Your task to perform on an android device: What's on my calendar tomorrow? Image 0: 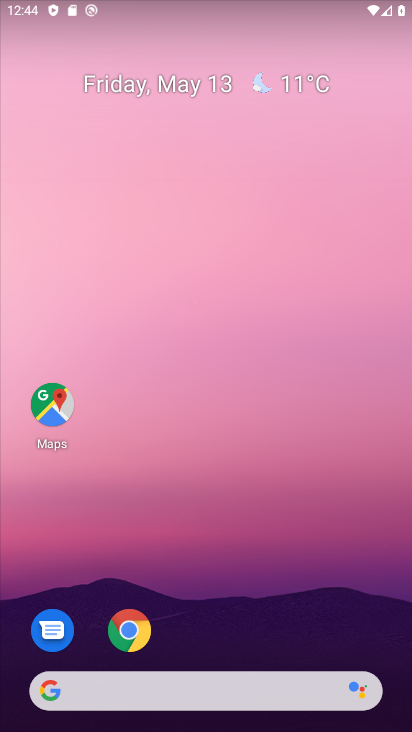
Step 0: drag from (237, 557) to (259, 158)
Your task to perform on an android device: What's on my calendar tomorrow? Image 1: 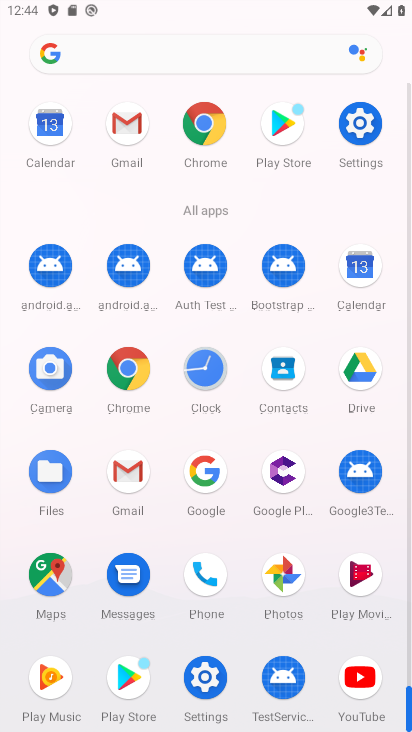
Step 1: click (356, 289)
Your task to perform on an android device: What's on my calendar tomorrow? Image 2: 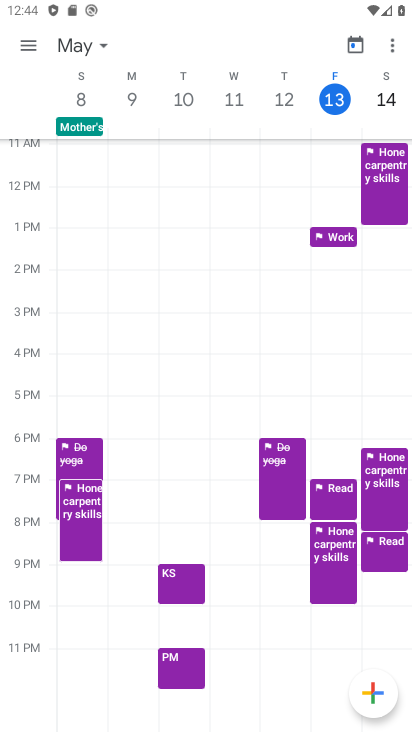
Step 2: click (383, 105)
Your task to perform on an android device: What's on my calendar tomorrow? Image 3: 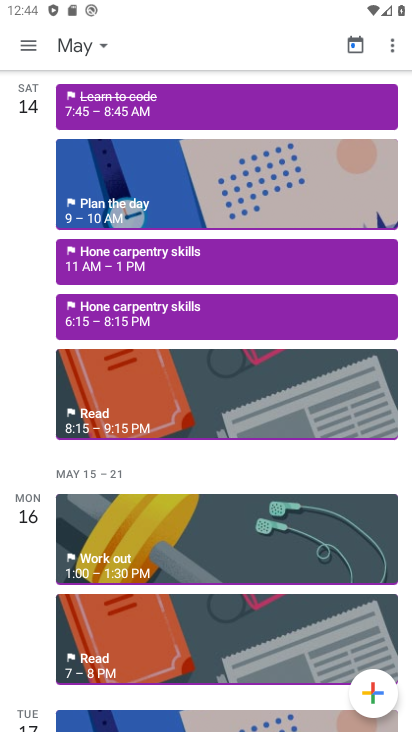
Step 3: task complete